Your task to perform on an android device: turn on showing notifications on the lock screen Image 0: 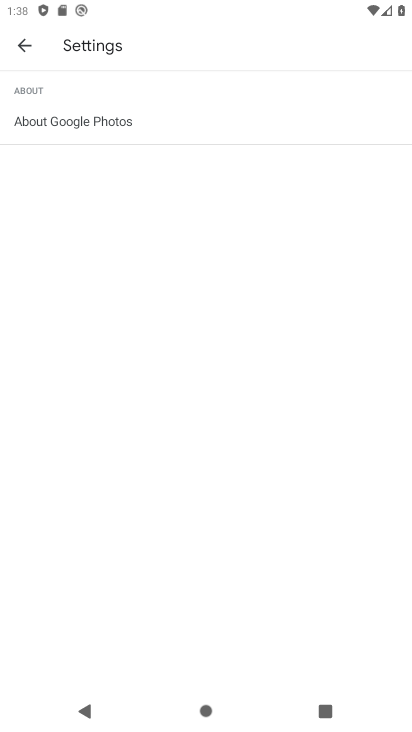
Step 0: press home button
Your task to perform on an android device: turn on showing notifications on the lock screen Image 1: 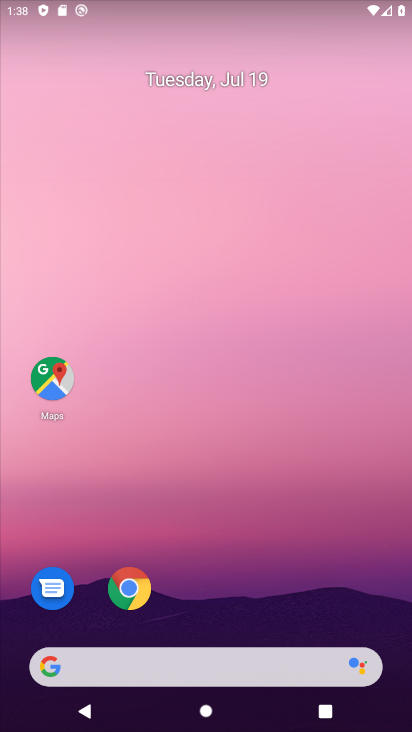
Step 1: drag from (191, 515) to (91, 123)
Your task to perform on an android device: turn on showing notifications on the lock screen Image 2: 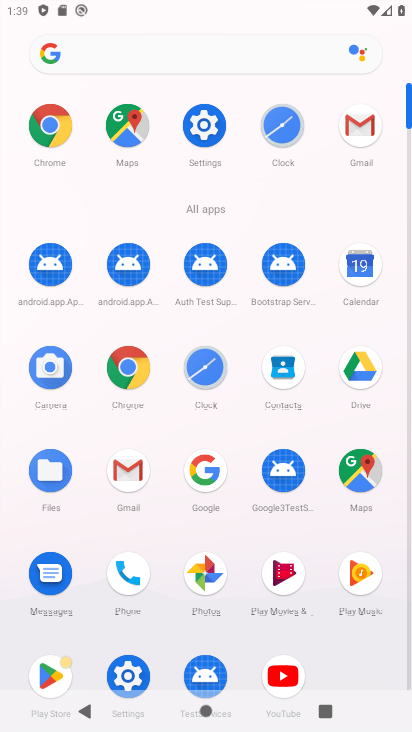
Step 2: click (205, 128)
Your task to perform on an android device: turn on showing notifications on the lock screen Image 3: 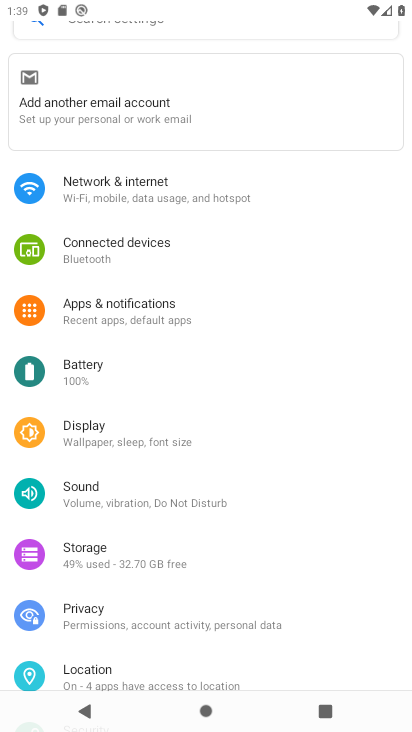
Step 3: click (122, 300)
Your task to perform on an android device: turn on showing notifications on the lock screen Image 4: 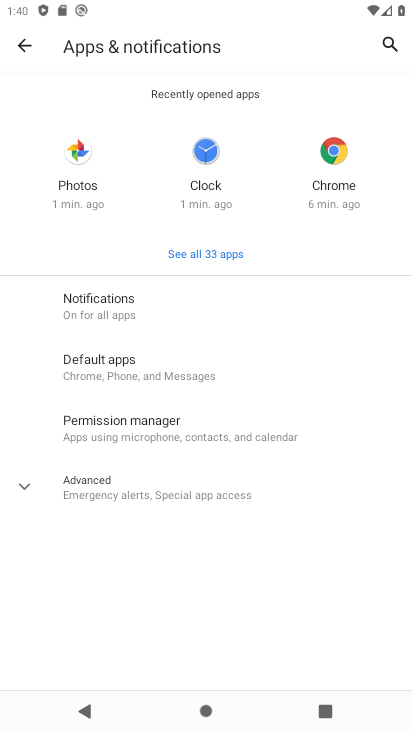
Step 4: click (109, 306)
Your task to perform on an android device: turn on showing notifications on the lock screen Image 5: 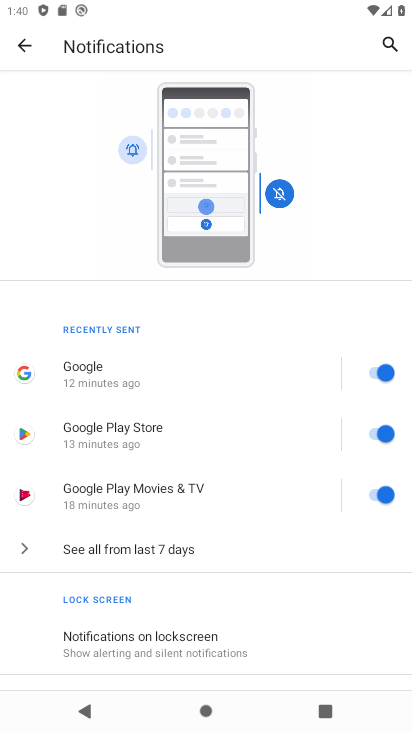
Step 5: click (182, 636)
Your task to perform on an android device: turn on showing notifications on the lock screen Image 6: 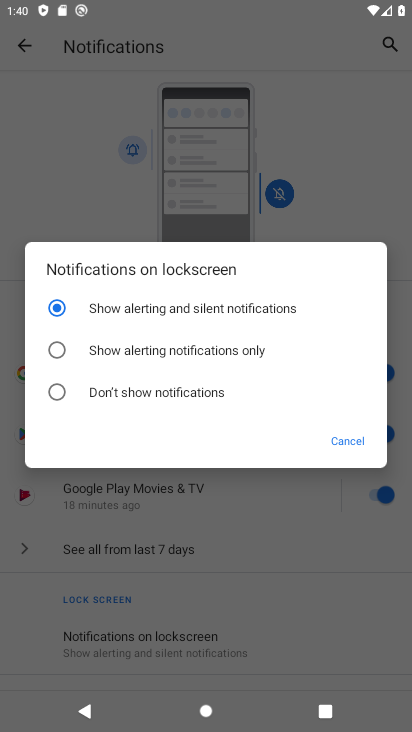
Step 6: task complete